Your task to perform on an android device: Search for the ikea sjalv lamp Image 0: 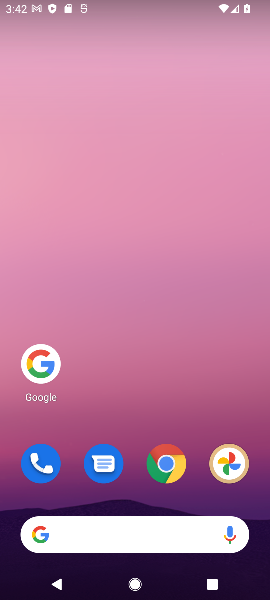
Step 0: click (40, 354)
Your task to perform on an android device: Search for the ikea sjalv lamp Image 1: 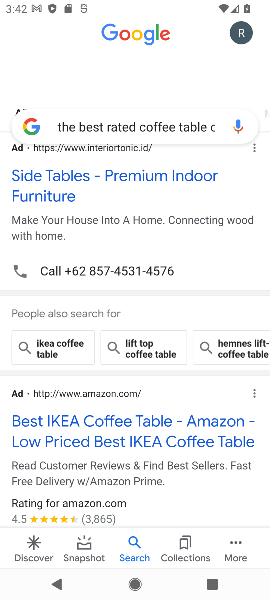
Step 1: click (183, 127)
Your task to perform on an android device: Search for the ikea sjalv lamp Image 2: 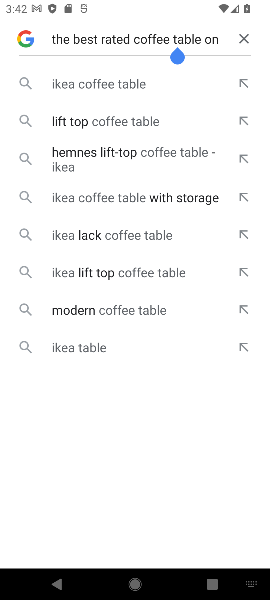
Step 2: click (247, 34)
Your task to perform on an android device: Search for the ikea sjalv lamp Image 3: 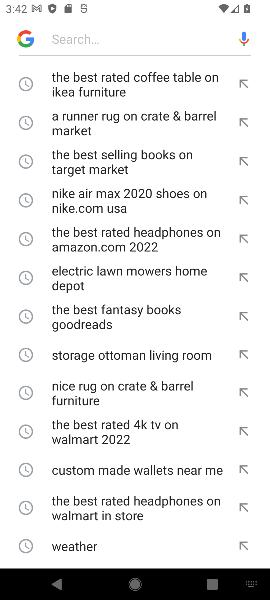
Step 3: click (84, 39)
Your task to perform on an android device: Search for the ikea sjalv lamp Image 4: 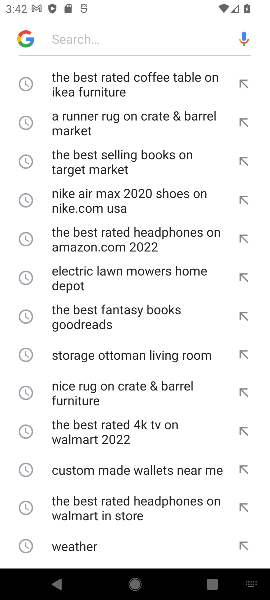
Step 4: type "the ikea sjalv lamp "
Your task to perform on an android device: Search for the ikea sjalv lamp Image 5: 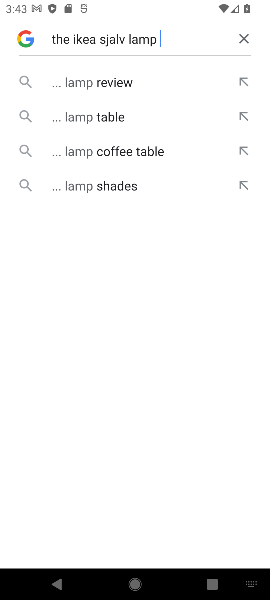
Step 5: click (98, 117)
Your task to perform on an android device: Search for the ikea sjalv lamp Image 6: 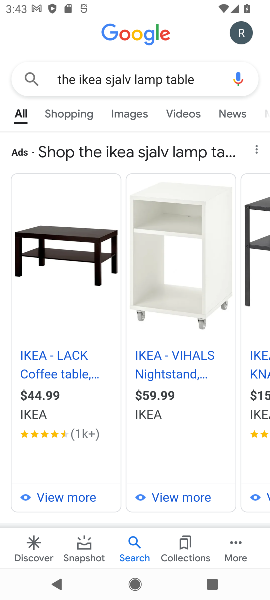
Step 6: task complete